Your task to perform on an android device: turn off priority inbox in the gmail app Image 0: 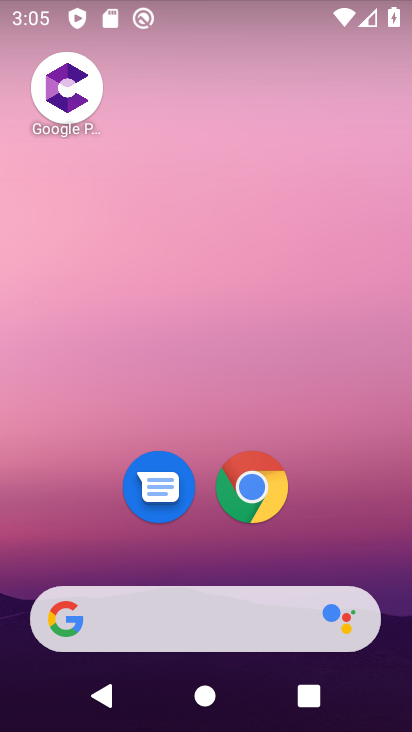
Step 0: drag from (341, 497) to (357, 20)
Your task to perform on an android device: turn off priority inbox in the gmail app Image 1: 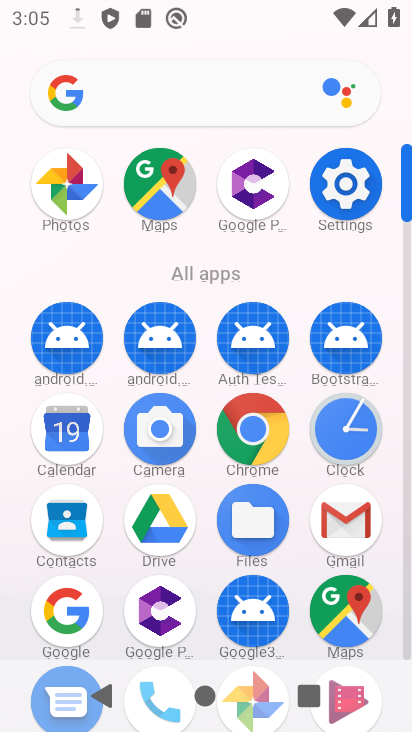
Step 1: drag from (204, 577) to (205, 340)
Your task to perform on an android device: turn off priority inbox in the gmail app Image 2: 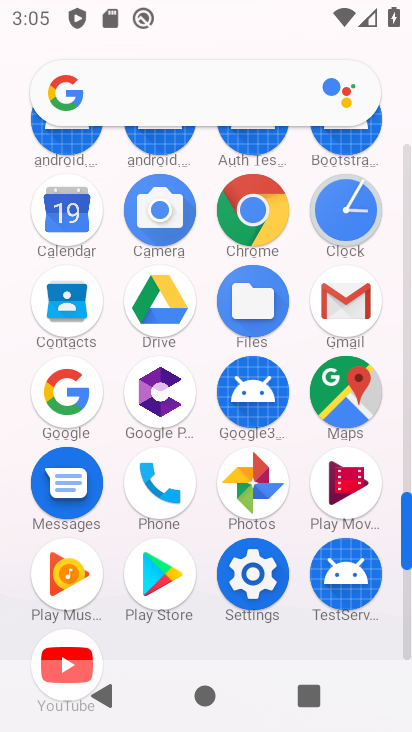
Step 2: click (346, 302)
Your task to perform on an android device: turn off priority inbox in the gmail app Image 3: 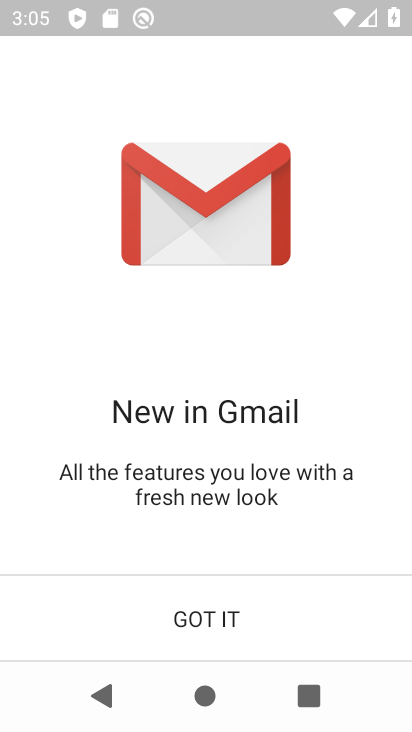
Step 3: click (196, 617)
Your task to perform on an android device: turn off priority inbox in the gmail app Image 4: 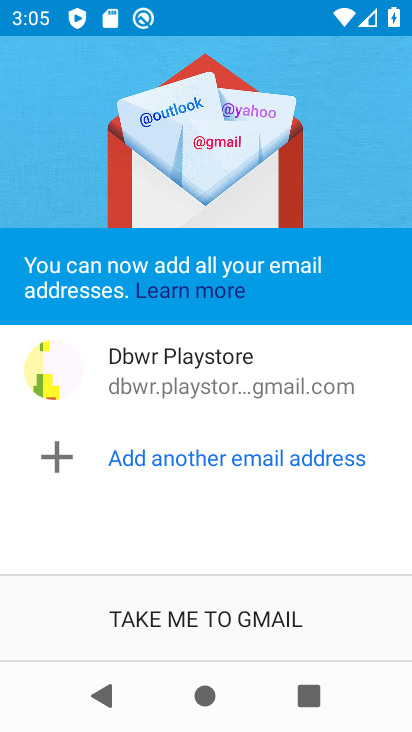
Step 4: click (195, 617)
Your task to perform on an android device: turn off priority inbox in the gmail app Image 5: 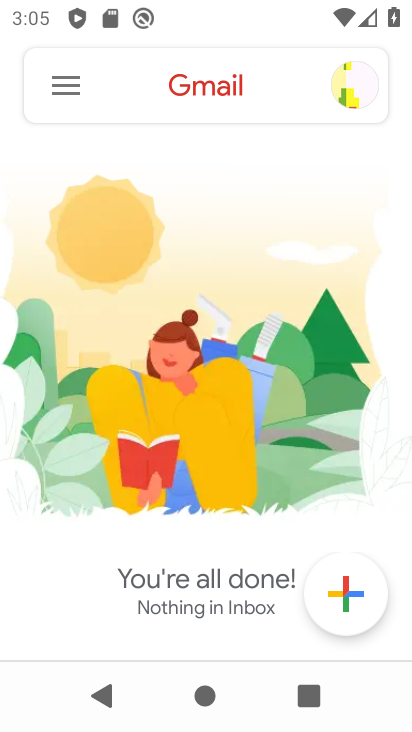
Step 5: click (60, 81)
Your task to perform on an android device: turn off priority inbox in the gmail app Image 6: 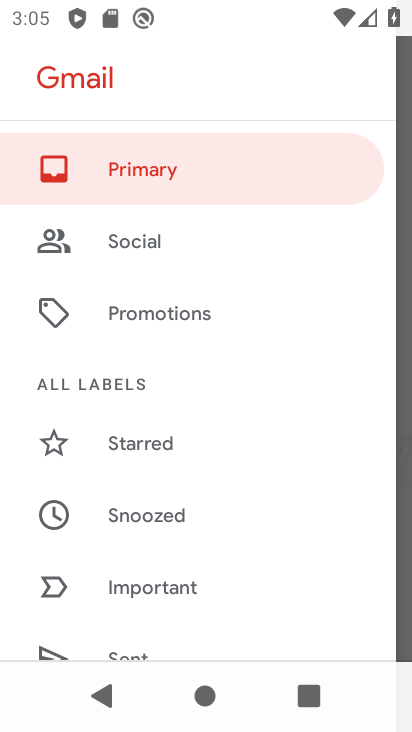
Step 6: drag from (145, 566) to (135, 434)
Your task to perform on an android device: turn off priority inbox in the gmail app Image 7: 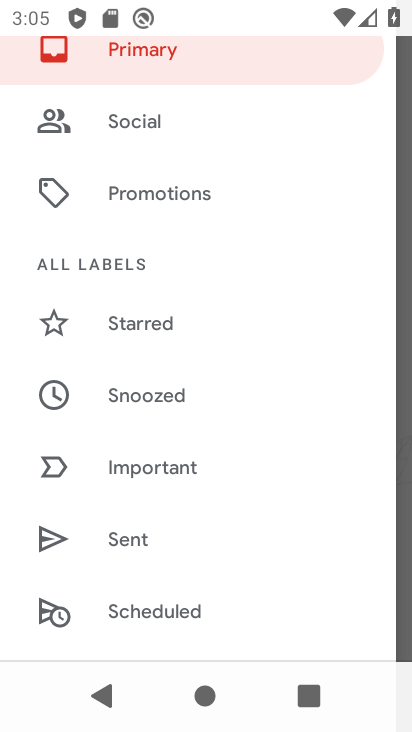
Step 7: drag from (177, 576) to (170, 470)
Your task to perform on an android device: turn off priority inbox in the gmail app Image 8: 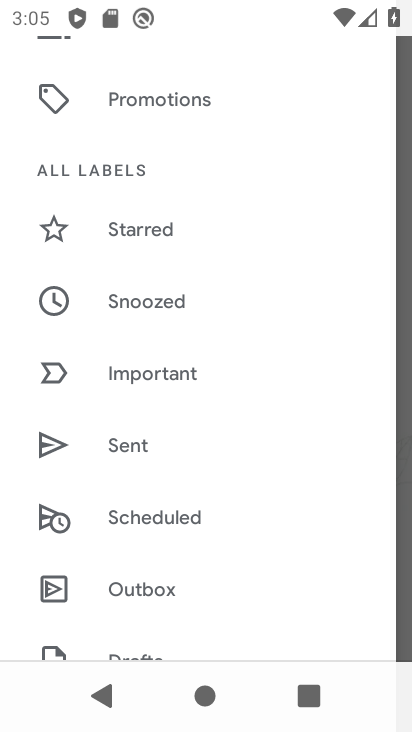
Step 8: drag from (189, 566) to (208, 455)
Your task to perform on an android device: turn off priority inbox in the gmail app Image 9: 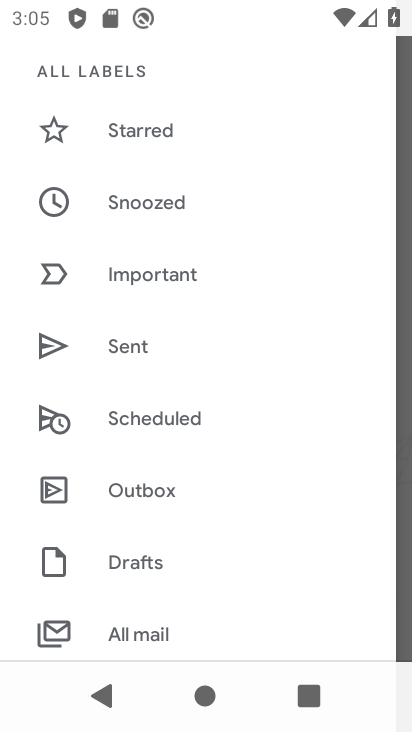
Step 9: drag from (164, 599) to (165, 492)
Your task to perform on an android device: turn off priority inbox in the gmail app Image 10: 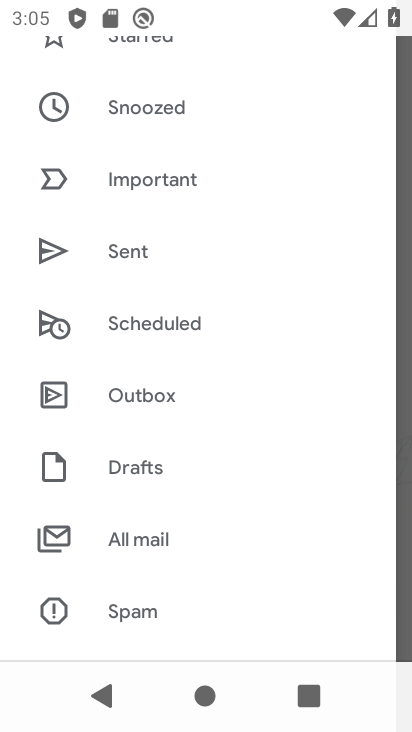
Step 10: drag from (186, 588) to (189, 477)
Your task to perform on an android device: turn off priority inbox in the gmail app Image 11: 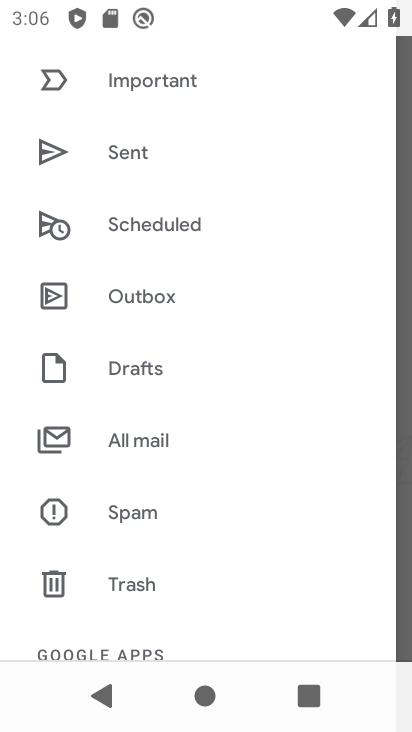
Step 11: drag from (173, 574) to (203, 480)
Your task to perform on an android device: turn off priority inbox in the gmail app Image 12: 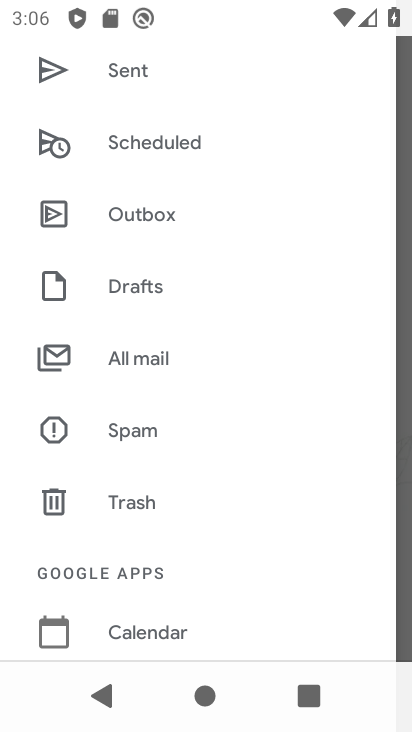
Step 12: drag from (173, 565) to (185, 474)
Your task to perform on an android device: turn off priority inbox in the gmail app Image 13: 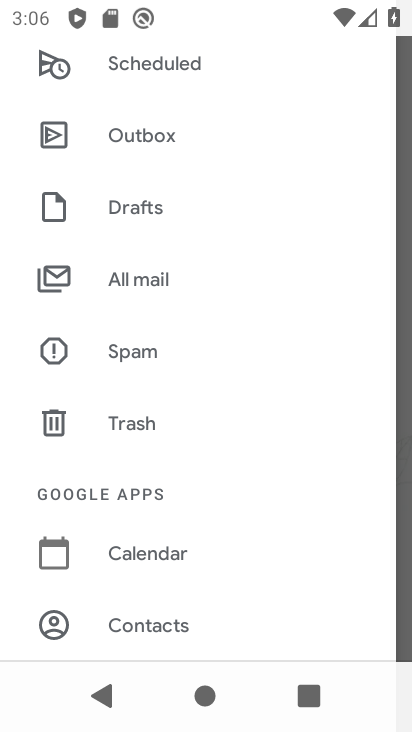
Step 13: drag from (168, 589) to (198, 490)
Your task to perform on an android device: turn off priority inbox in the gmail app Image 14: 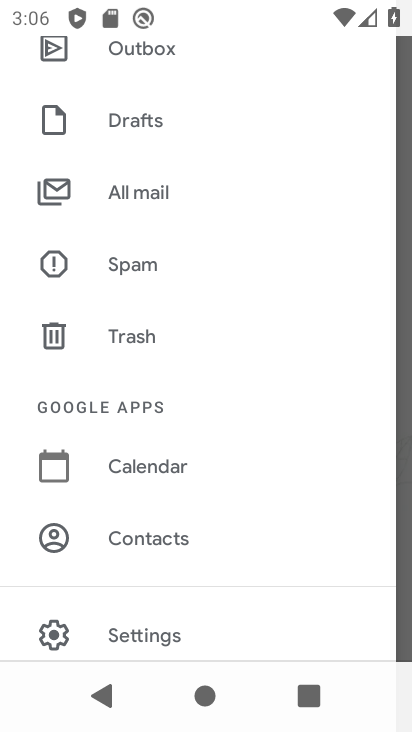
Step 14: drag from (183, 558) to (230, 466)
Your task to perform on an android device: turn off priority inbox in the gmail app Image 15: 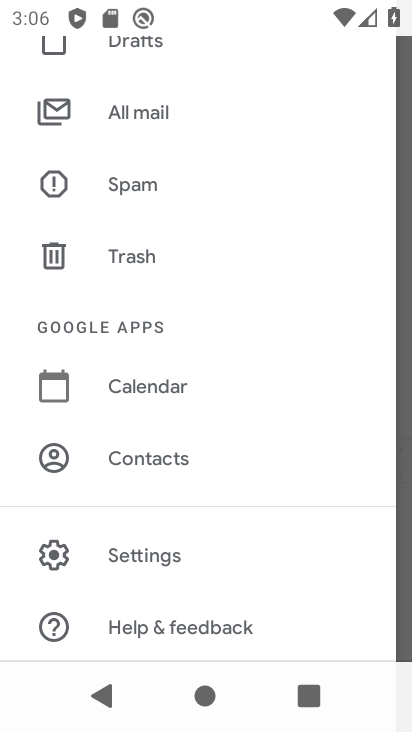
Step 15: click (148, 561)
Your task to perform on an android device: turn off priority inbox in the gmail app Image 16: 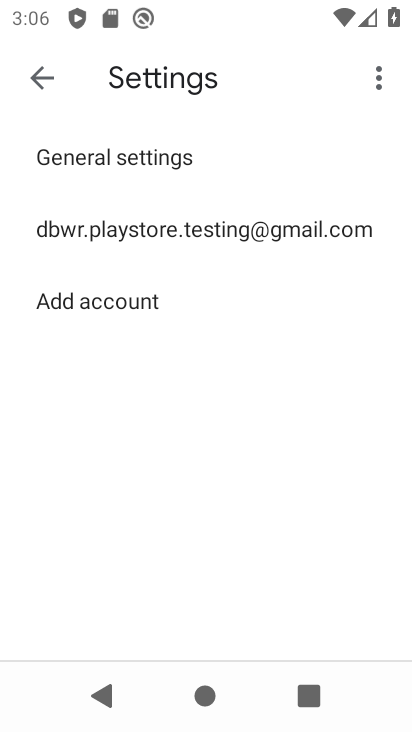
Step 16: click (203, 234)
Your task to perform on an android device: turn off priority inbox in the gmail app Image 17: 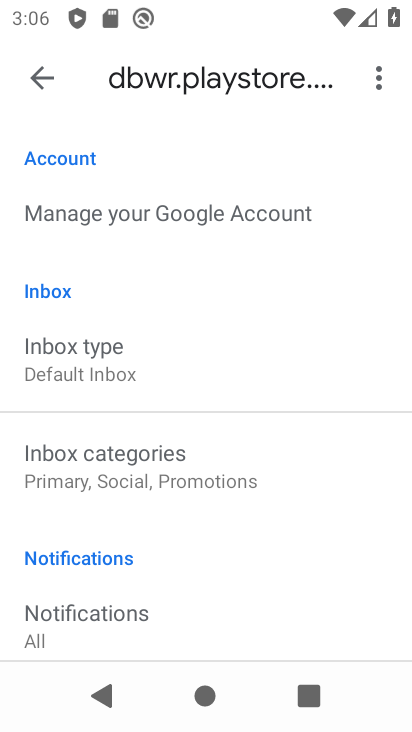
Step 17: click (108, 362)
Your task to perform on an android device: turn off priority inbox in the gmail app Image 18: 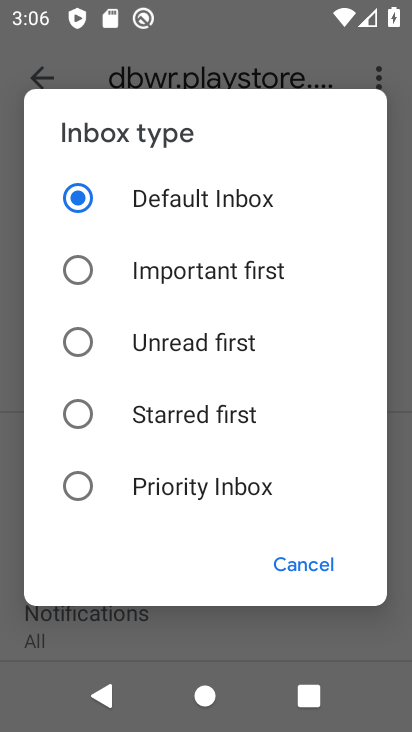
Step 18: task complete